Your task to perform on an android device: Check the weather Image 0: 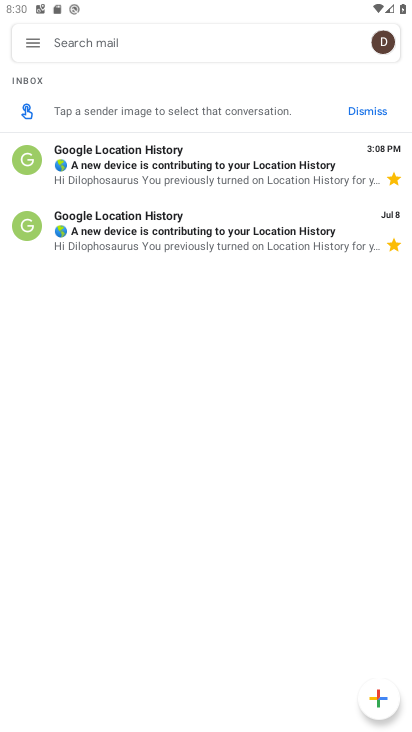
Step 0: press home button
Your task to perform on an android device: Check the weather Image 1: 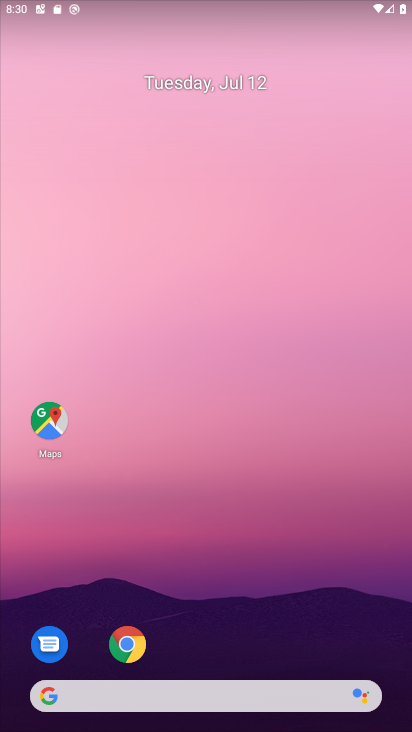
Step 1: drag from (380, 461) to (264, 246)
Your task to perform on an android device: Check the weather Image 2: 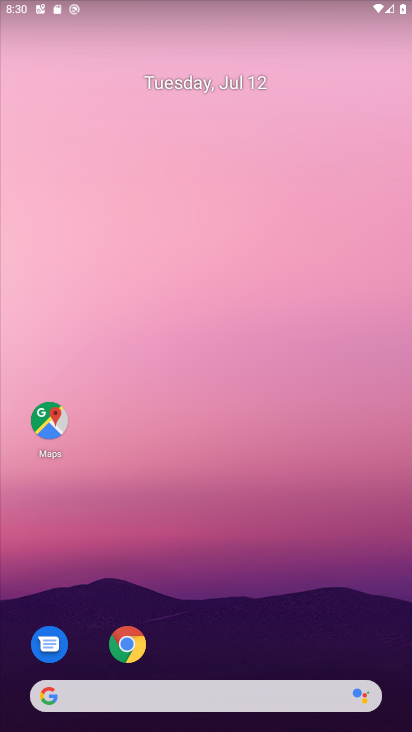
Step 2: drag from (335, 555) to (219, 285)
Your task to perform on an android device: Check the weather Image 3: 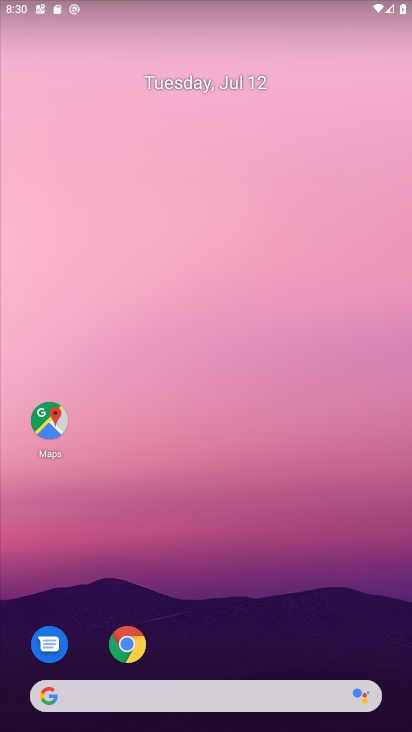
Step 3: drag from (312, 629) to (221, 287)
Your task to perform on an android device: Check the weather Image 4: 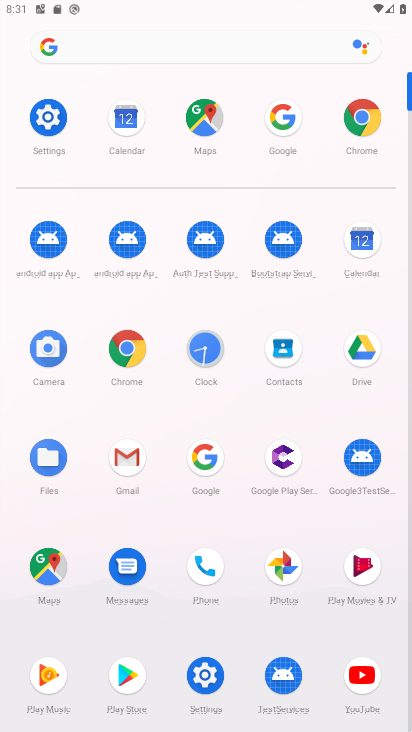
Step 4: click (293, 122)
Your task to perform on an android device: Check the weather Image 5: 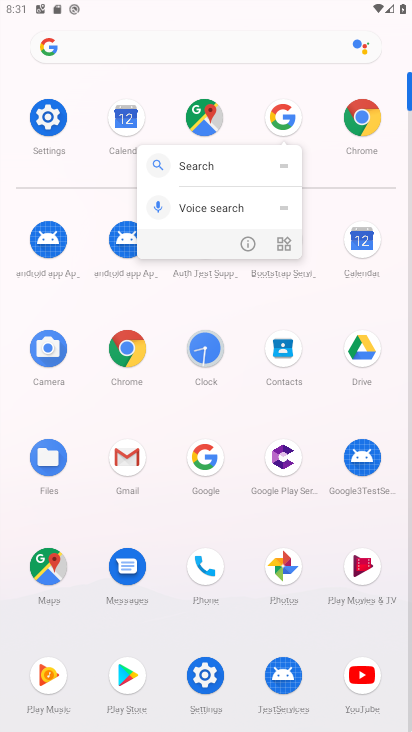
Step 5: click (294, 122)
Your task to perform on an android device: Check the weather Image 6: 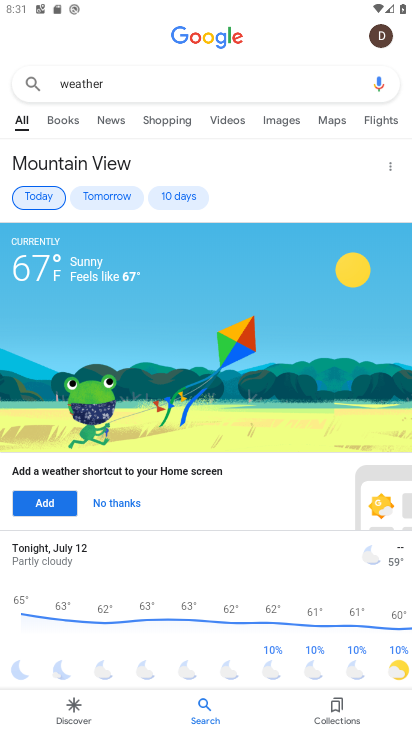
Step 6: task complete